Your task to perform on an android device: Go to calendar. Show me events next week Image 0: 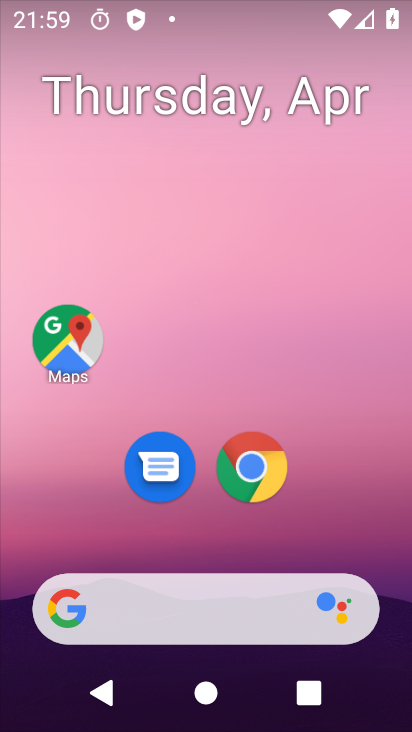
Step 0: drag from (205, 555) to (301, 39)
Your task to perform on an android device: Go to calendar. Show me events next week Image 1: 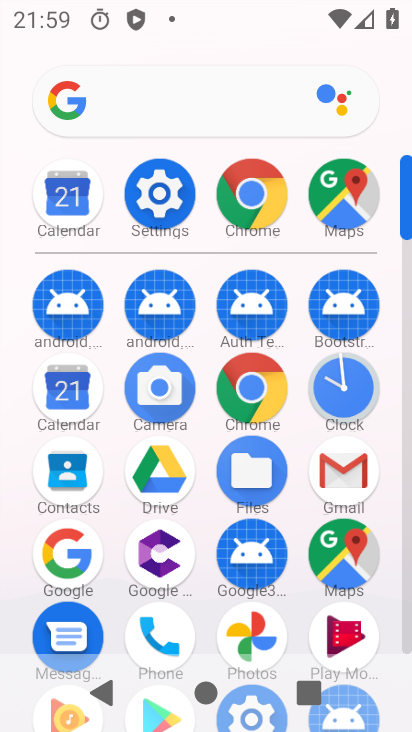
Step 1: click (47, 398)
Your task to perform on an android device: Go to calendar. Show me events next week Image 2: 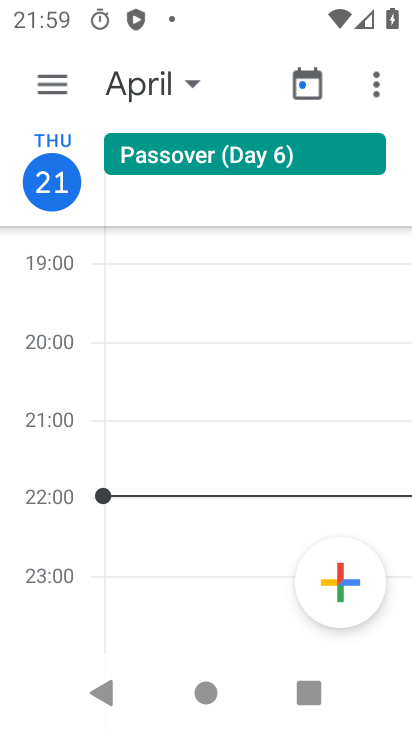
Step 2: click (52, 75)
Your task to perform on an android device: Go to calendar. Show me events next week Image 3: 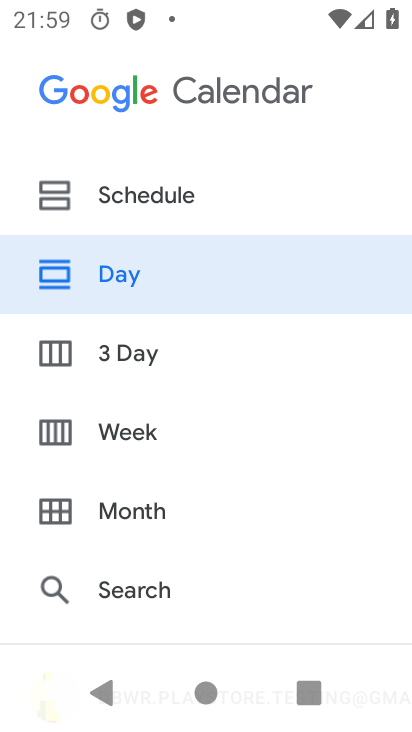
Step 3: click (111, 419)
Your task to perform on an android device: Go to calendar. Show me events next week Image 4: 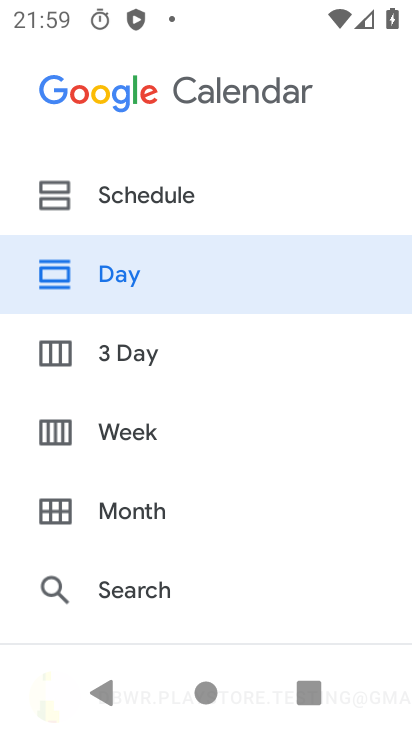
Step 4: click (88, 441)
Your task to perform on an android device: Go to calendar. Show me events next week Image 5: 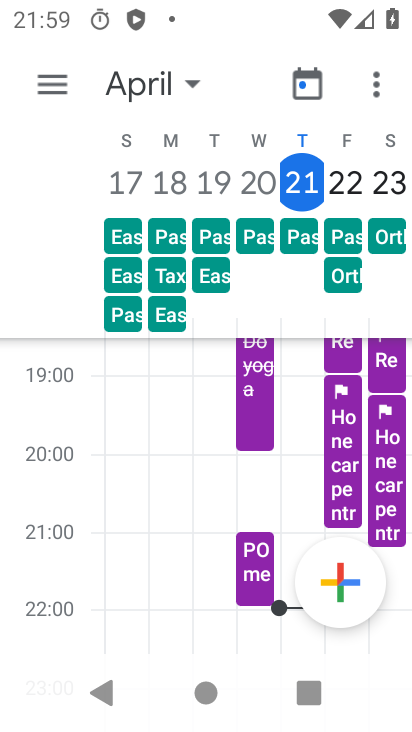
Step 5: task complete